Your task to perform on an android device: Go to ESPN.com Image 0: 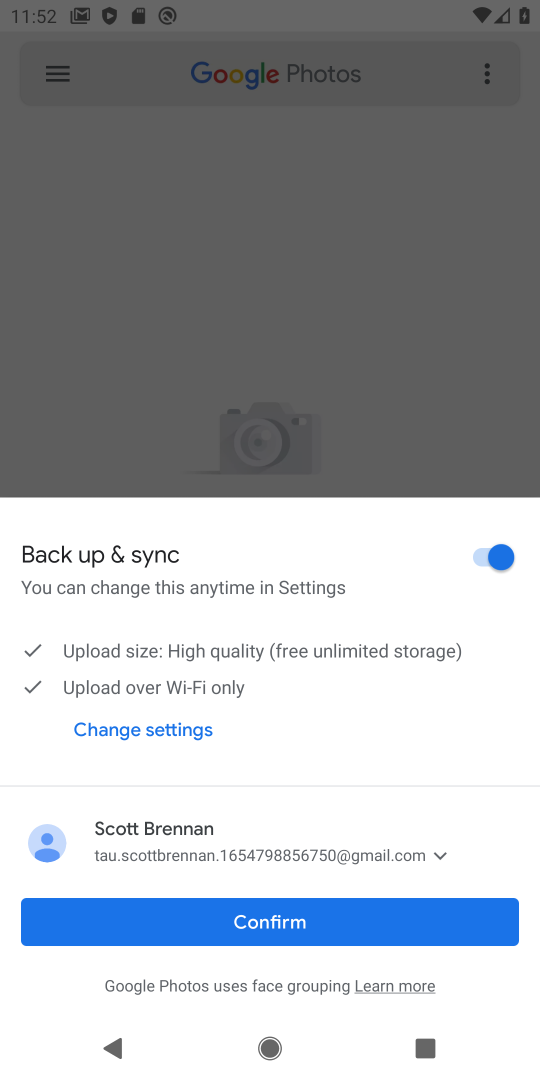
Step 0: task complete